Your task to perform on an android device: Go to accessibility settings Image 0: 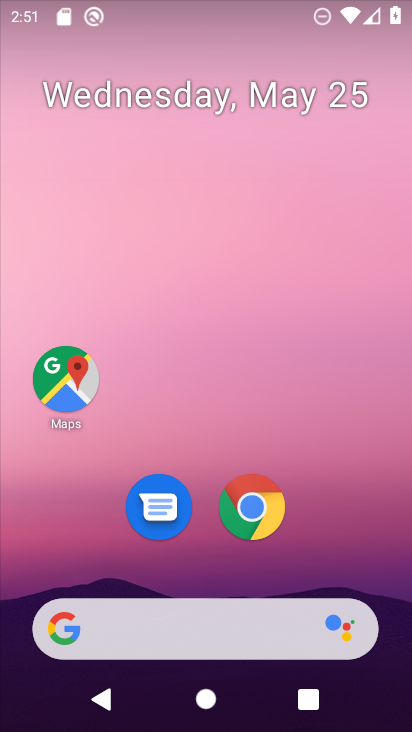
Step 0: drag from (219, 634) to (264, 184)
Your task to perform on an android device: Go to accessibility settings Image 1: 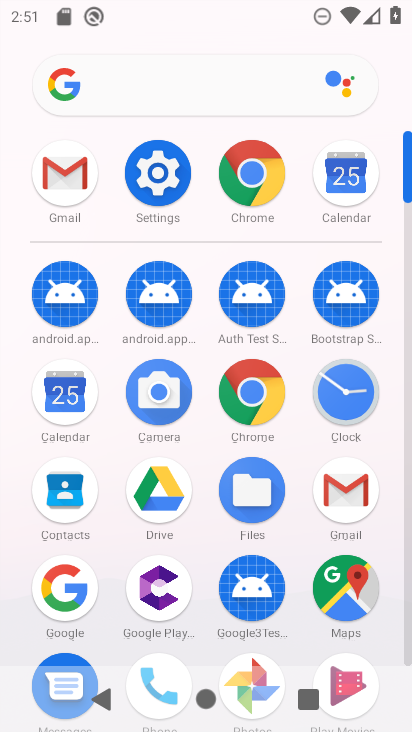
Step 1: click (165, 188)
Your task to perform on an android device: Go to accessibility settings Image 2: 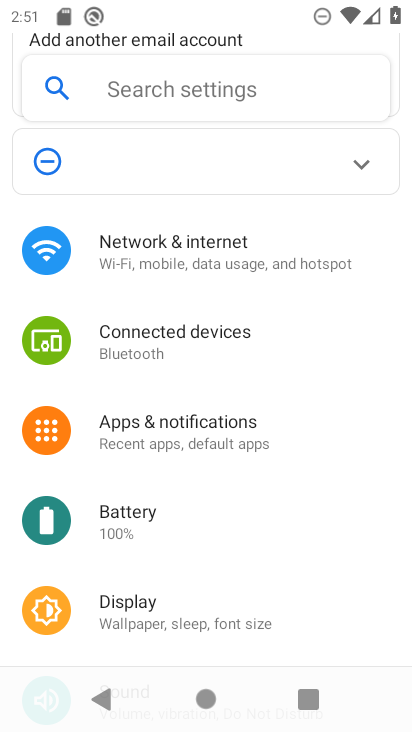
Step 2: drag from (139, 530) to (177, 339)
Your task to perform on an android device: Go to accessibility settings Image 3: 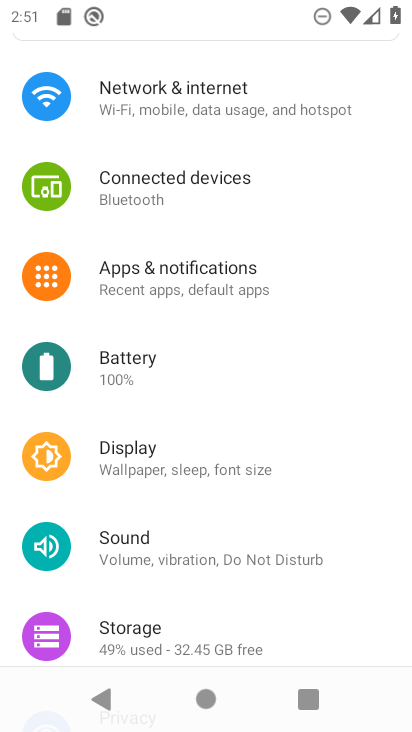
Step 3: drag from (165, 546) to (240, 230)
Your task to perform on an android device: Go to accessibility settings Image 4: 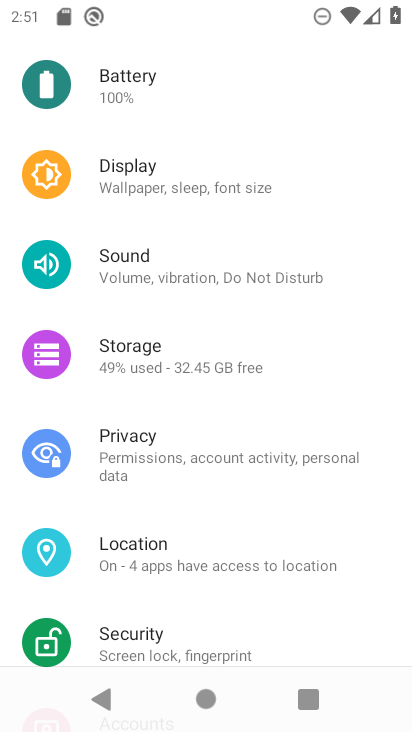
Step 4: drag from (189, 553) to (253, 221)
Your task to perform on an android device: Go to accessibility settings Image 5: 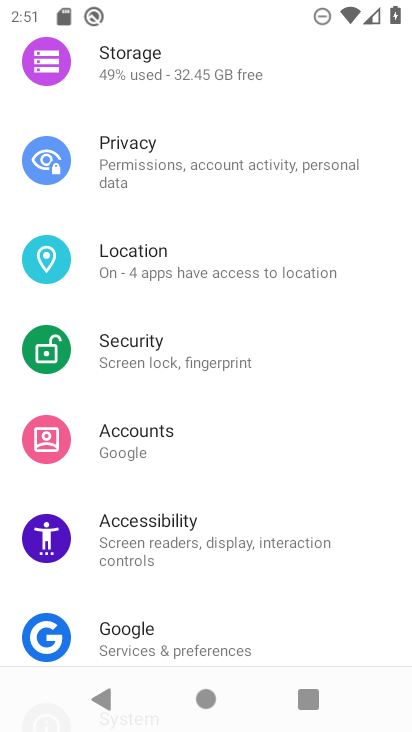
Step 5: click (209, 562)
Your task to perform on an android device: Go to accessibility settings Image 6: 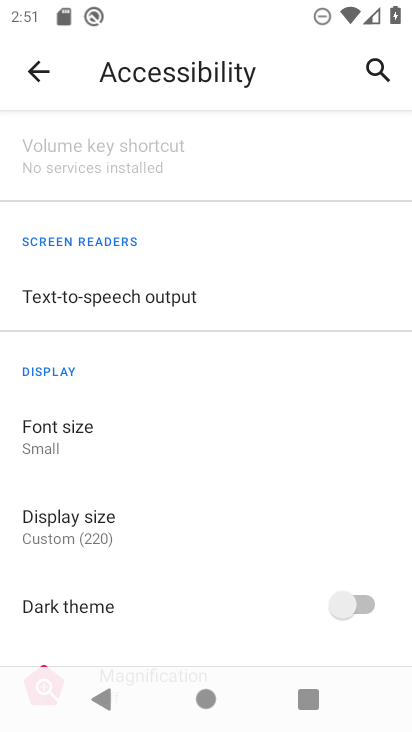
Step 6: task complete